Your task to perform on an android device: Search for the best rated headphones on AliExpress. Image 0: 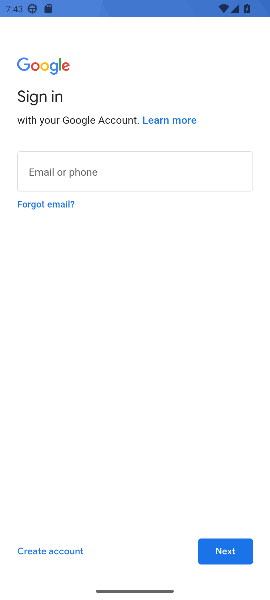
Step 0: press home button
Your task to perform on an android device: Search for the best rated headphones on AliExpress. Image 1: 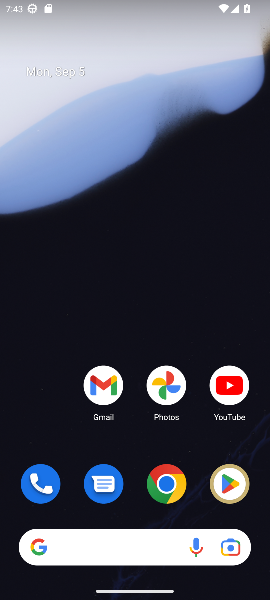
Step 1: drag from (153, 461) to (116, 22)
Your task to perform on an android device: Search for the best rated headphones on AliExpress. Image 2: 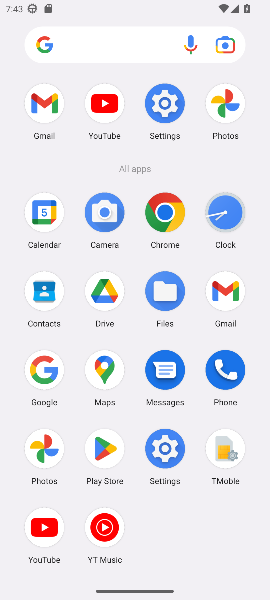
Step 2: click (156, 218)
Your task to perform on an android device: Search for the best rated headphones on AliExpress. Image 3: 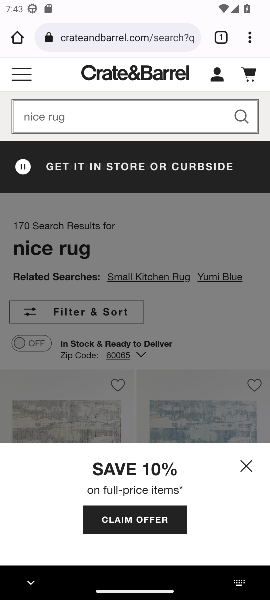
Step 3: click (127, 31)
Your task to perform on an android device: Search for the best rated headphones on AliExpress. Image 4: 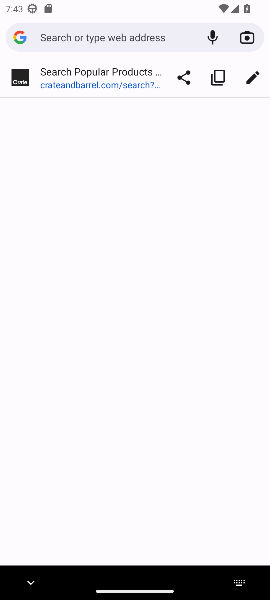
Step 4: type " AliExpress."
Your task to perform on an android device: Search for the best rated headphones on AliExpress. Image 5: 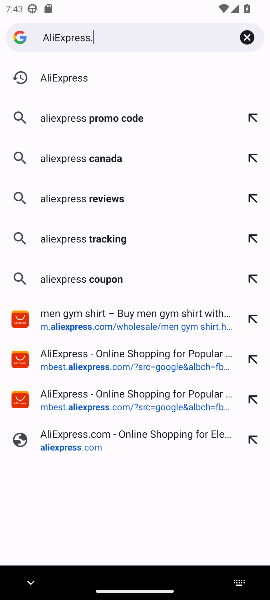
Step 5: press enter
Your task to perform on an android device: Search for the best rated headphones on AliExpress. Image 6: 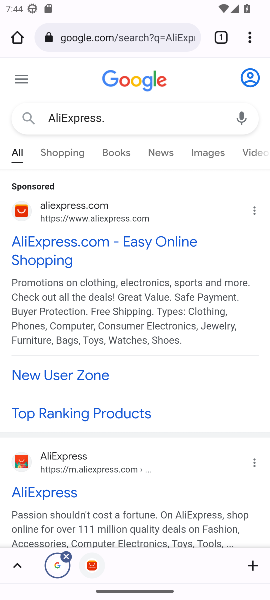
Step 6: click (62, 251)
Your task to perform on an android device: Search for the best rated headphones on AliExpress. Image 7: 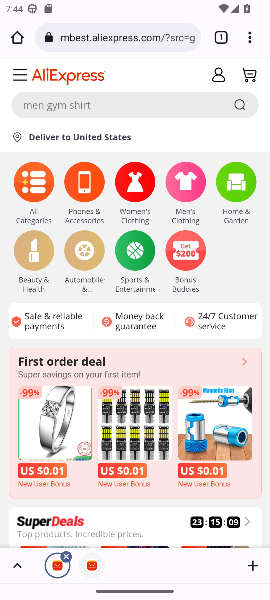
Step 7: click (62, 110)
Your task to perform on an android device: Search for the best rated headphones on AliExpress. Image 8: 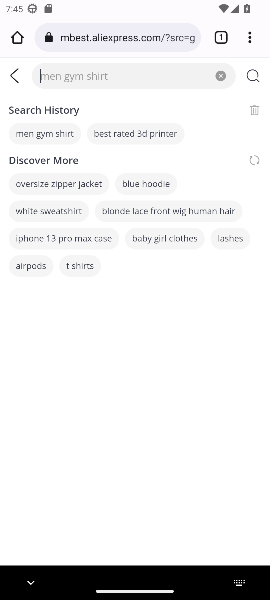
Step 8: type "best rated headphones"
Your task to perform on an android device: Search for the best rated headphones on AliExpress. Image 9: 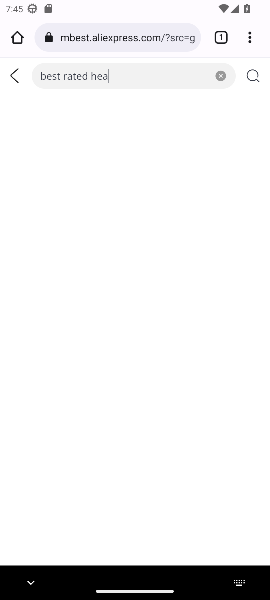
Step 9: press enter
Your task to perform on an android device: Search for the best rated headphones on AliExpress. Image 10: 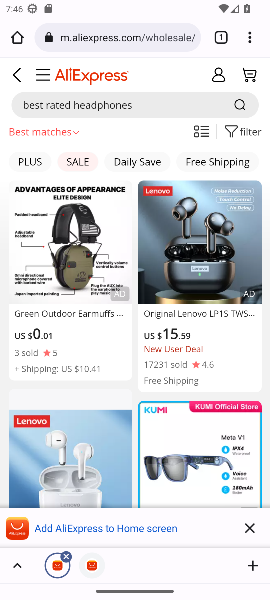
Step 10: click (118, 106)
Your task to perform on an android device: Search for the best rated headphones on AliExpress. Image 11: 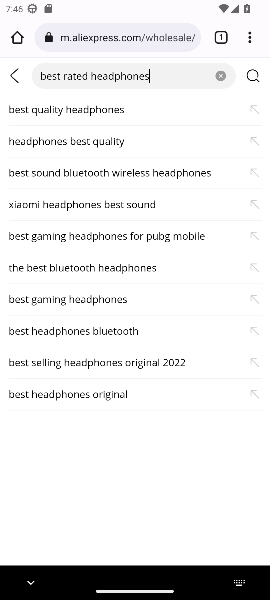
Step 11: press enter
Your task to perform on an android device: Search for the best rated headphones on AliExpress. Image 12: 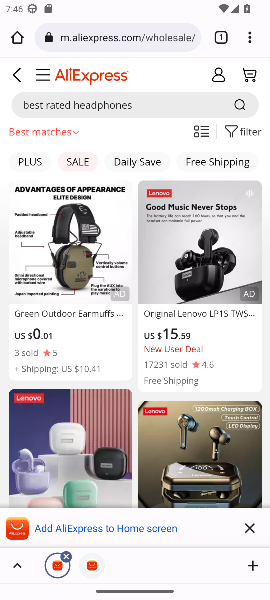
Step 12: task complete